Your task to perform on an android device: What's the weather? Image 0: 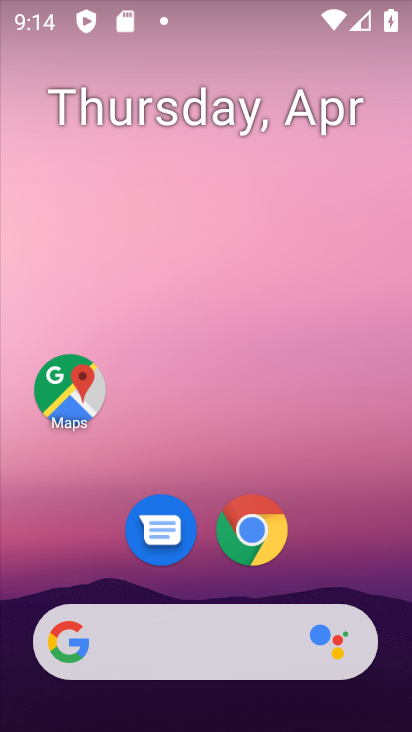
Step 0: click (179, 630)
Your task to perform on an android device: What's the weather? Image 1: 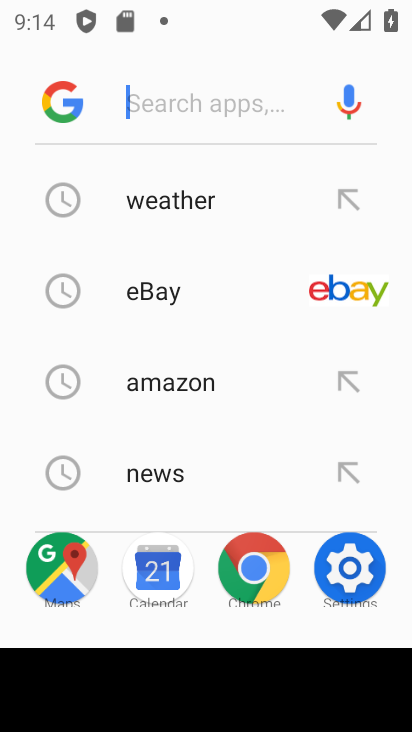
Step 1: click (200, 202)
Your task to perform on an android device: What's the weather? Image 2: 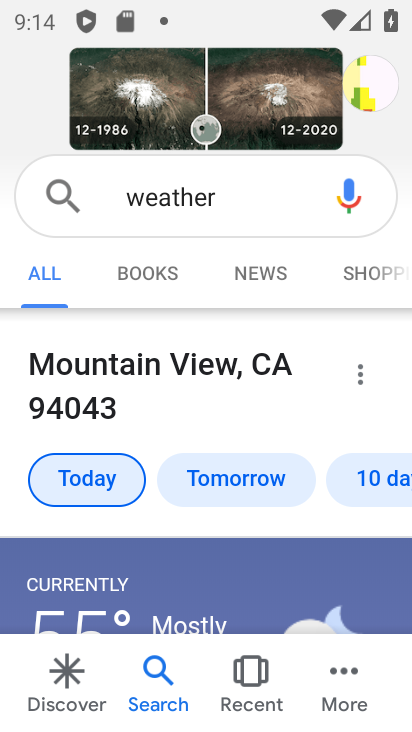
Step 2: task complete